Your task to perform on an android device: turn on javascript in the chrome app Image 0: 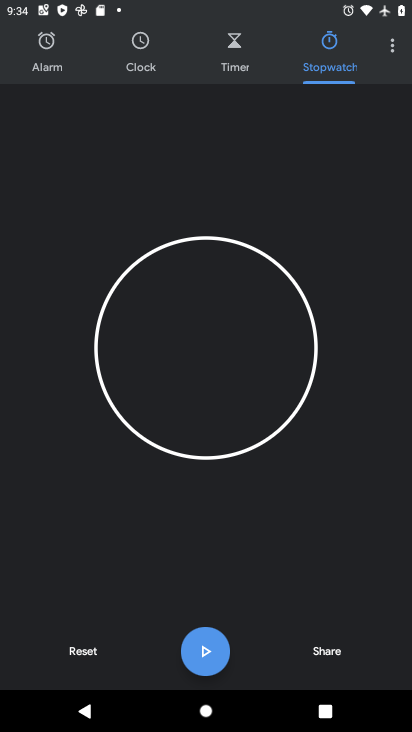
Step 0: press home button
Your task to perform on an android device: turn on javascript in the chrome app Image 1: 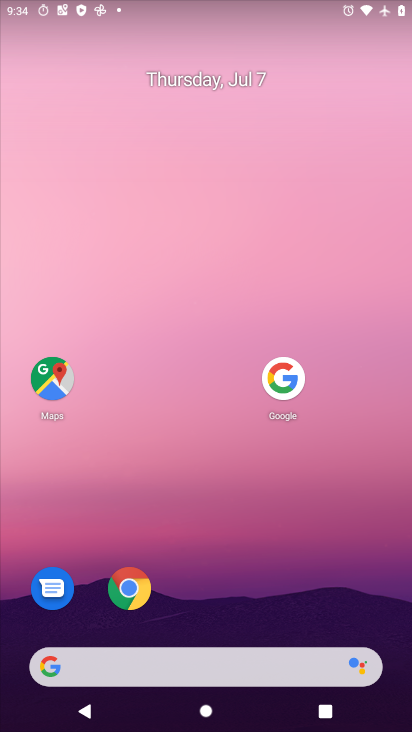
Step 1: drag from (177, 658) to (302, 51)
Your task to perform on an android device: turn on javascript in the chrome app Image 2: 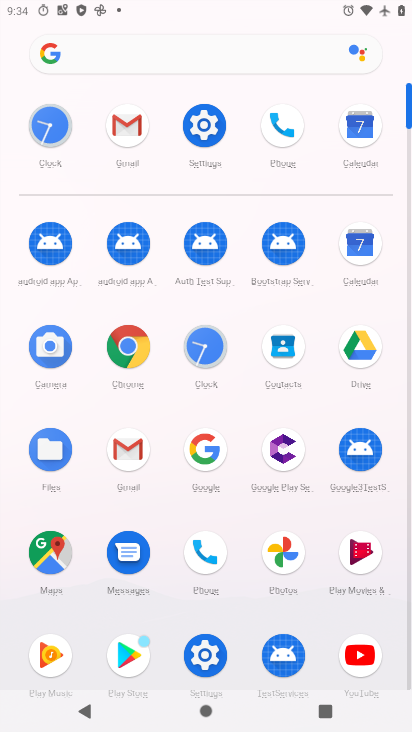
Step 2: click (124, 354)
Your task to perform on an android device: turn on javascript in the chrome app Image 3: 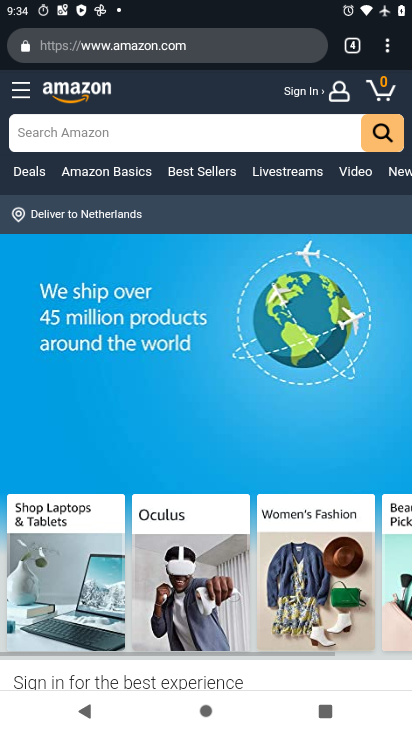
Step 3: drag from (391, 43) to (233, 547)
Your task to perform on an android device: turn on javascript in the chrome app Image 4: 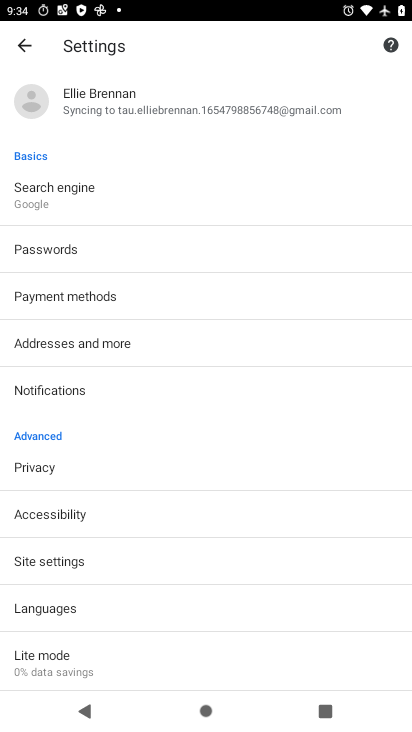
Step 4: click (58, 558)
Your task to perform on an android device: turn on javascript in the chrome app Image 5: 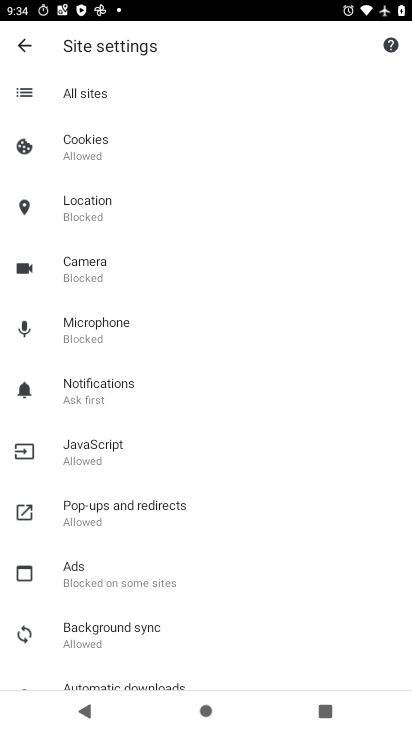
Step 5: click (92, 446)
Your task to perform on an android device: turn on javascript in the chrome app Image 6: 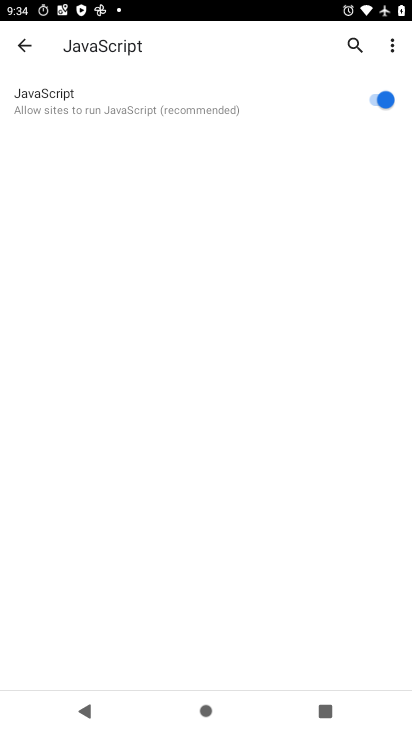
Step 6: task complete